Your task to perform on an android device: Go to Android settings Image 0: 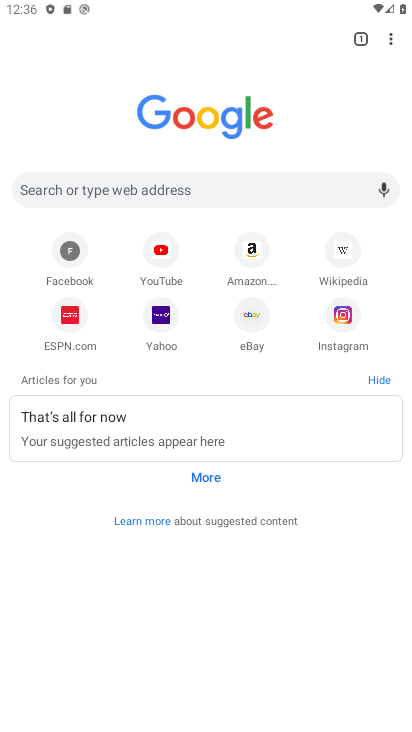
Step 0: press home button
Your task to perform on an android device: Go to Android settings Image 1: 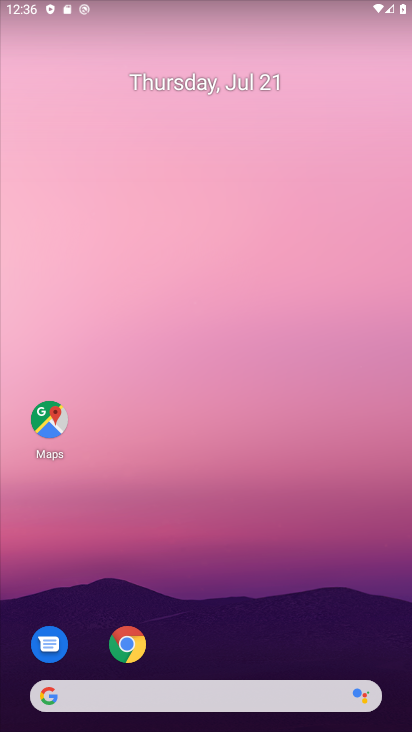
Step 1: drag from (290, 633) to (341, 151)
Your task to perform on an android device: Go to Android settings Image 2: 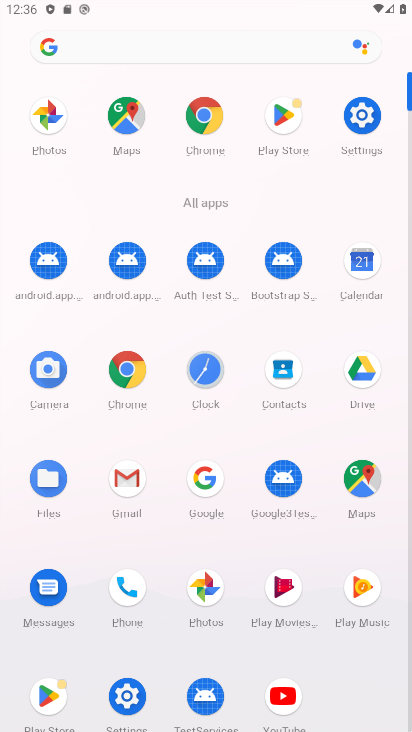
Step 2: click (123, 699)
Your task to perform on an android device: Go to Android settings Image 3: 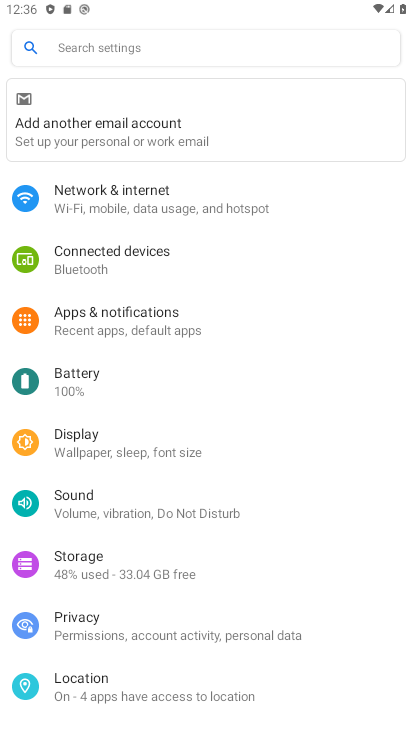
Step 3: drag from (243, 685) to (270, 241)
Your task to perform on an android device: Go to Android settings Image 4: 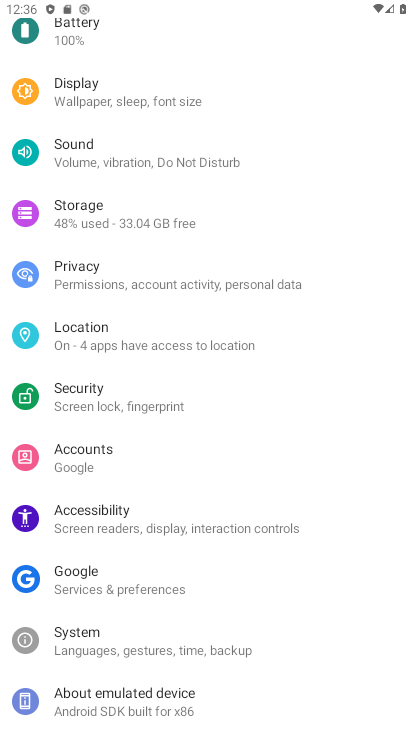
Step 4: click (131, 693)
Your task to perform on an android device: Go to Android settings Image 5: 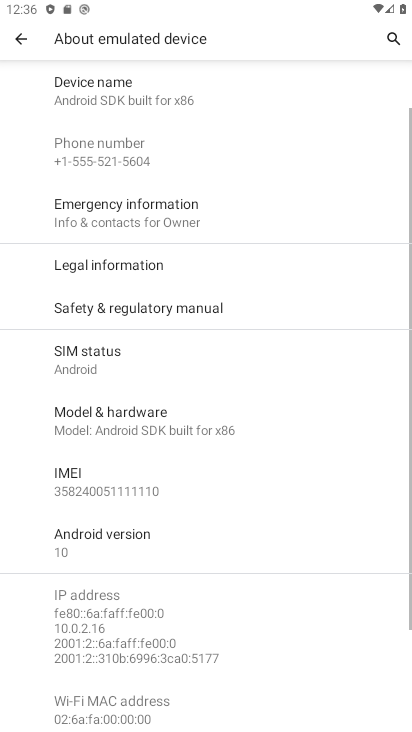
Step 5: click (78, 528)
Your task to perform on an android device: Go to Android settings Image 6: 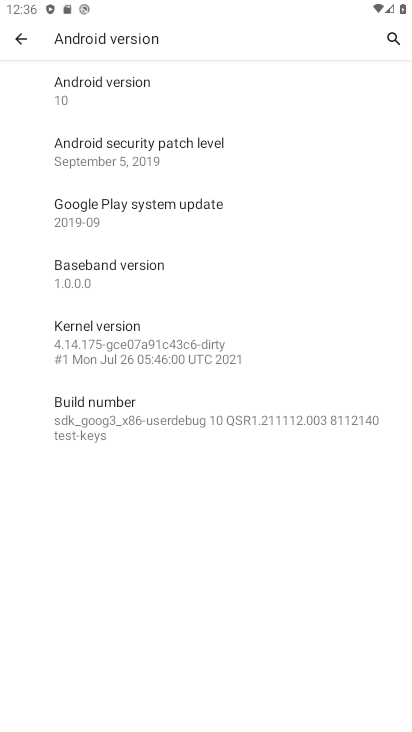
Step 6: task complete